Your task to perform on an android device: change text size in settings app Image 0: 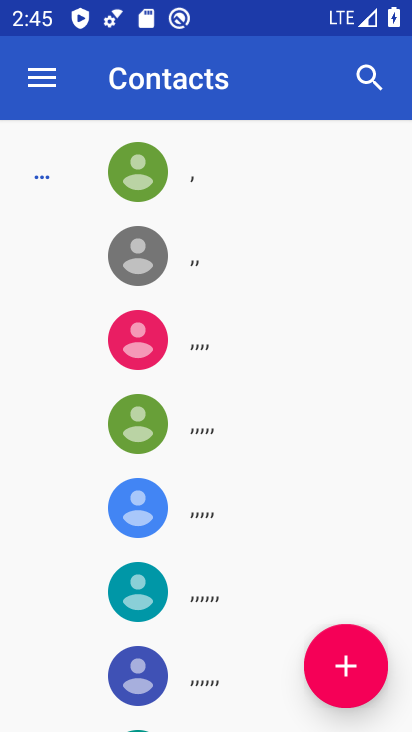
Step 0: press home button
Your task to perform on an android device: change text size in settings app Image 1: 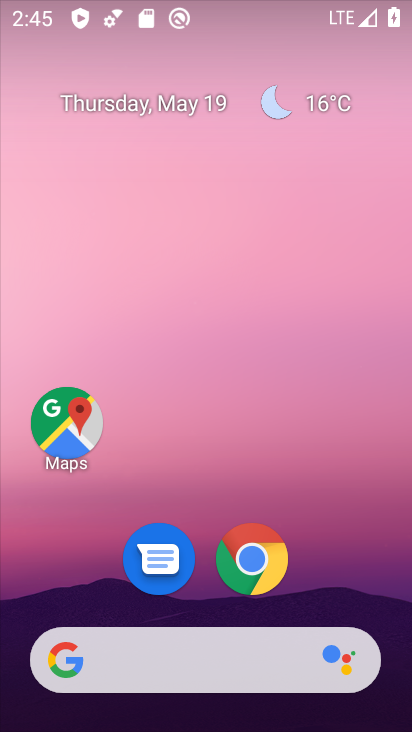
Step 1: drag from (218, 601) to (206, 175)
Your task to perform on an android device: change text size in settings app Image 2: 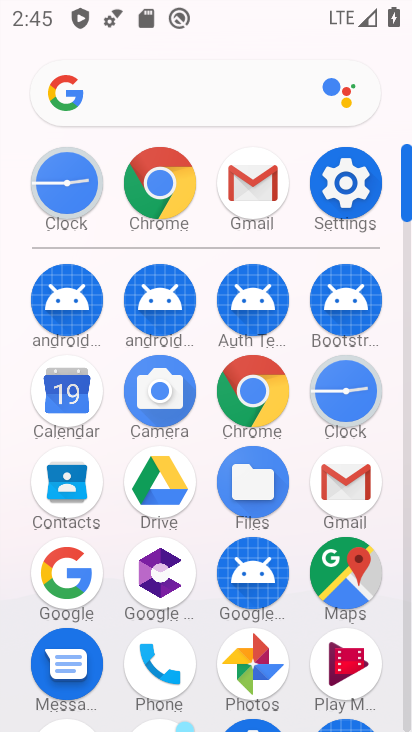
Step 2: click (320, 179)
Your task to perform on an android device: change text size in settings app Image 3: 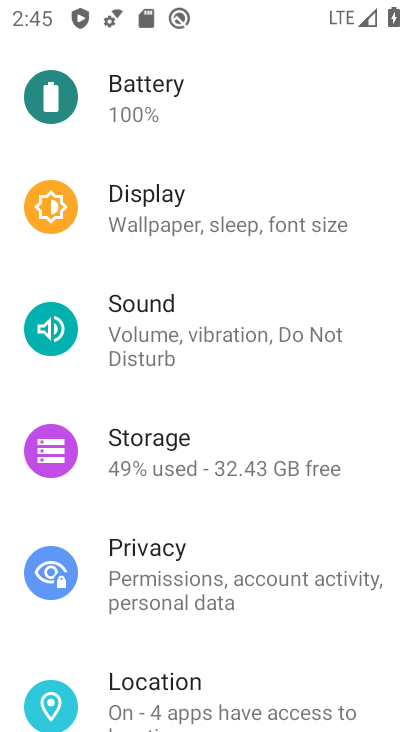
Step 3: click (179, 231)
Your task to perform on an android device: change text size in settings app Image 4: 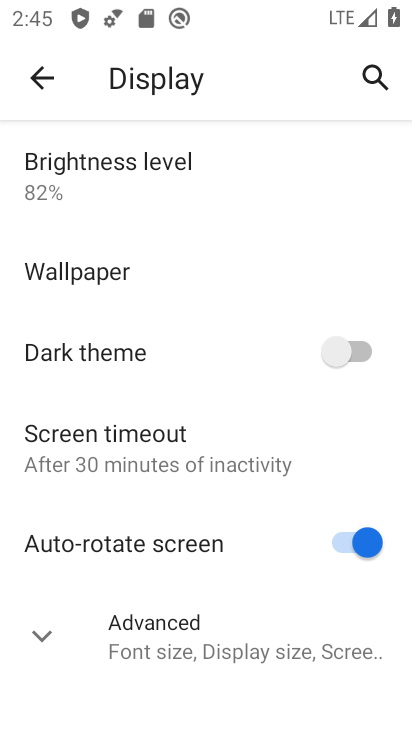
Step 4: click (172, 622)
Your task to perform on an android device: change text size in settings app Image 5: 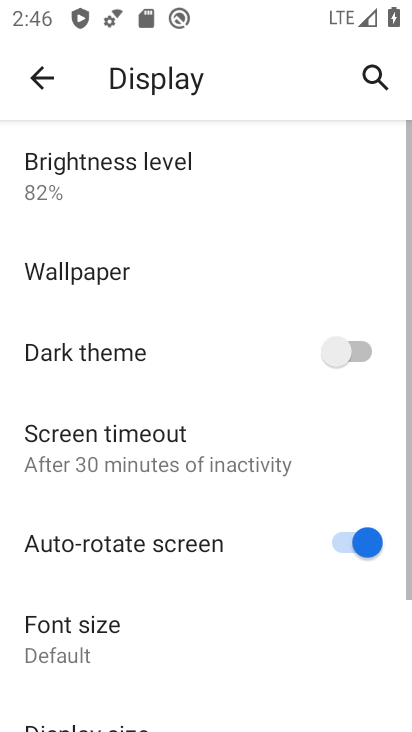
Step 5: drag from (176, 620) to (194, 399)
Your task to perform on an android device: change text size in settings app Image 6: 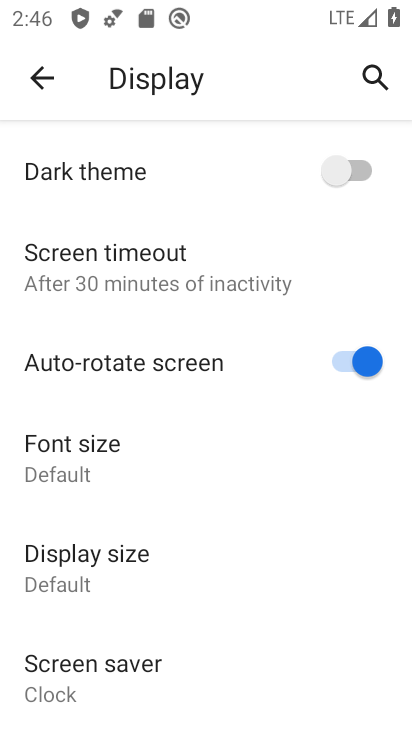
Step 6: click (137, 468)
Your task to perform on an android device: change text size in settings app Image 7: 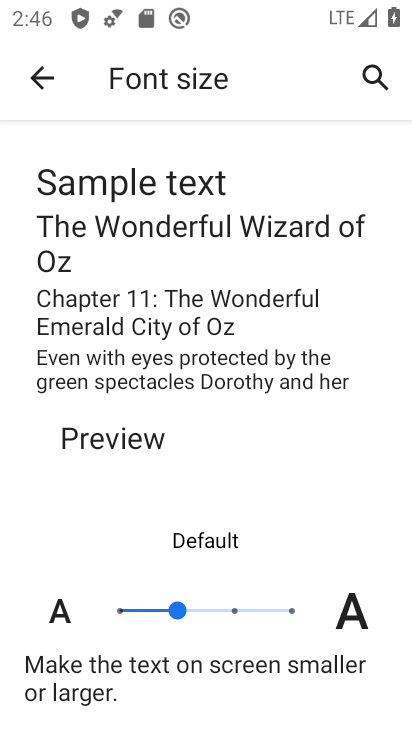
Step 7: task complete